Your task to perform on an android device: turn on wifi Image 0: 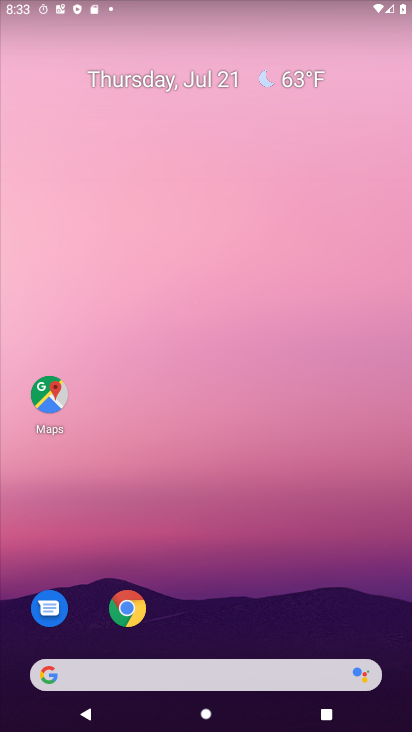
Step 0: press home button
Your task to perform on an android device: turn on wifi Image 1: 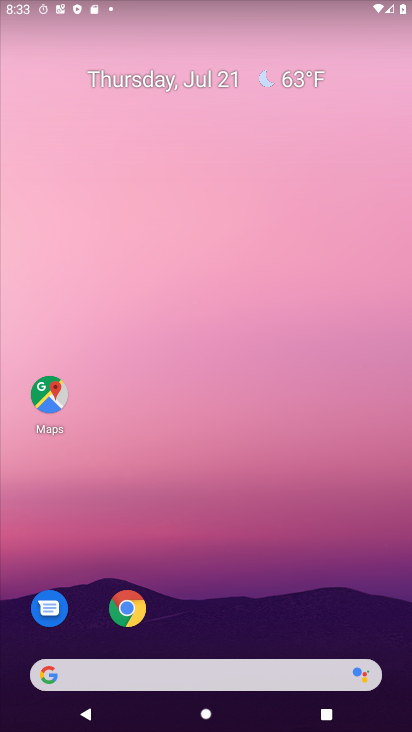
Step 1: task complete